Your task to perform on an android device: set an alarm Image 0: 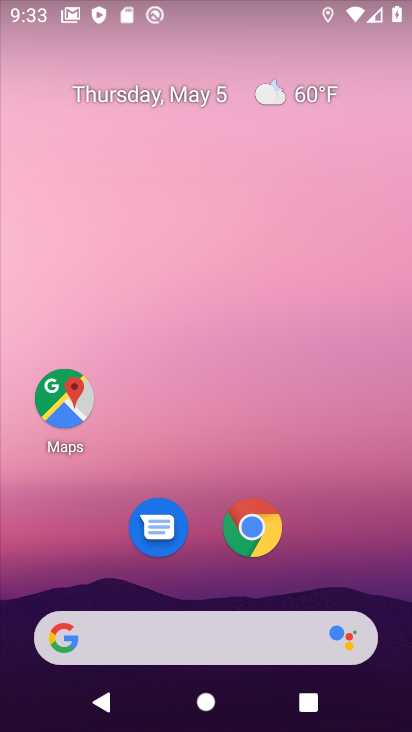
Step 0: press home button
Your task to perform on an android device: set an alarm Image 1: 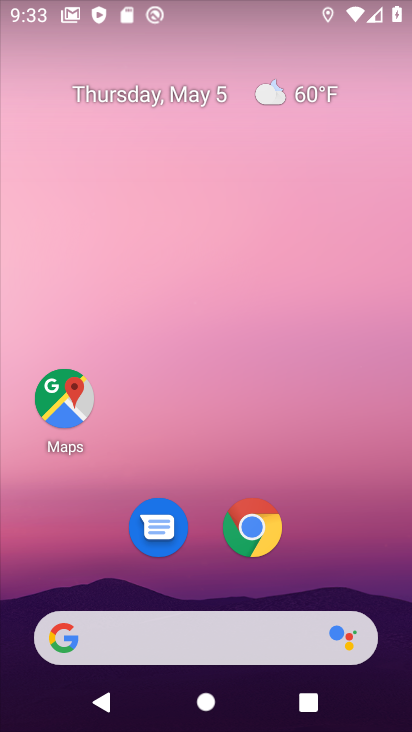
Step 1: drag from (210, 588) to (212, 0)
Your task to perform on an android device: set an alarm Image 2: 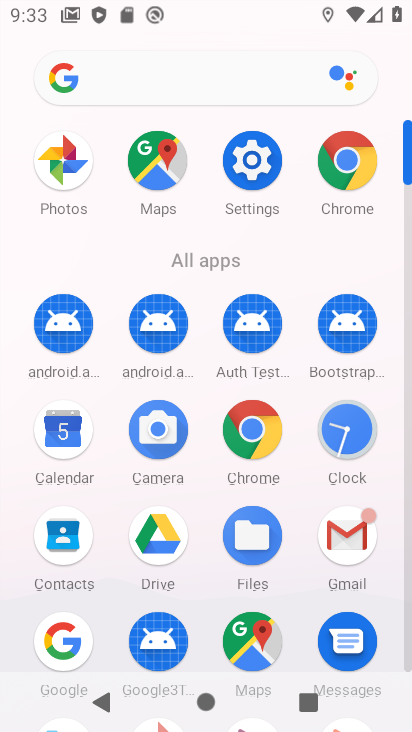
Step 2: click (344, 426)
Your task to perform on an android device: set an alarm Image 3: 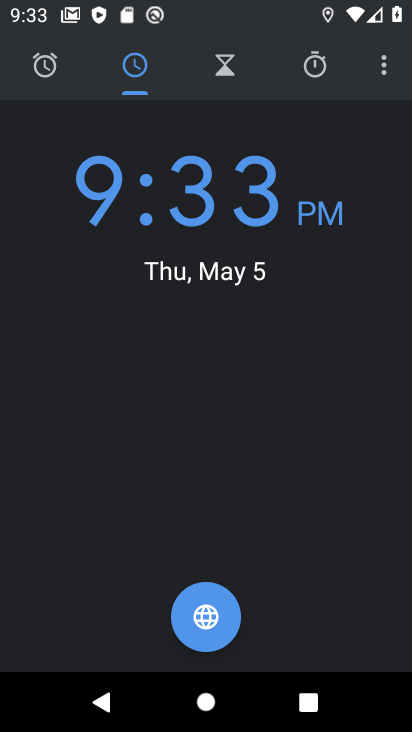
Step 3: click (49, 56)
Your task to perform on an android device: set an alarm Image 4: 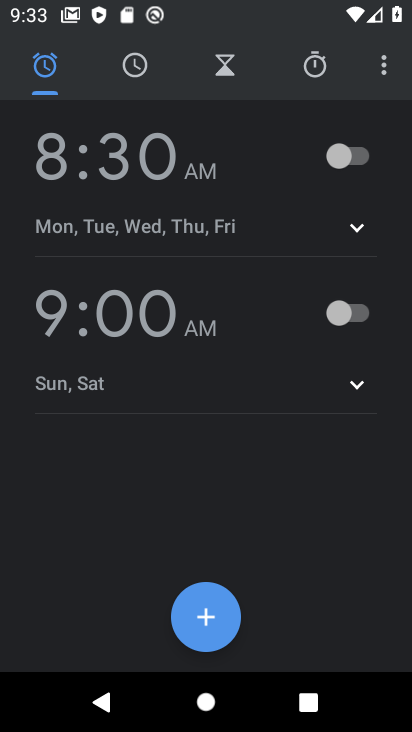
Step 4: click (137, 158)
Your task to perform on an android device: set an alarm Image 5: 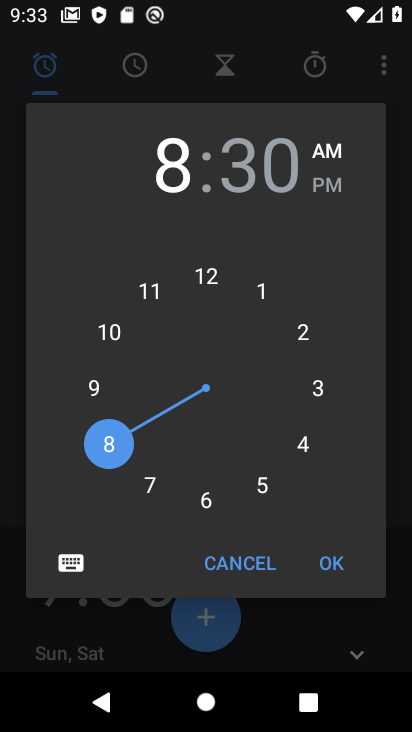
Step 5: click (324, 567)
Your task to perform on an android device: set an alarm Image 6: 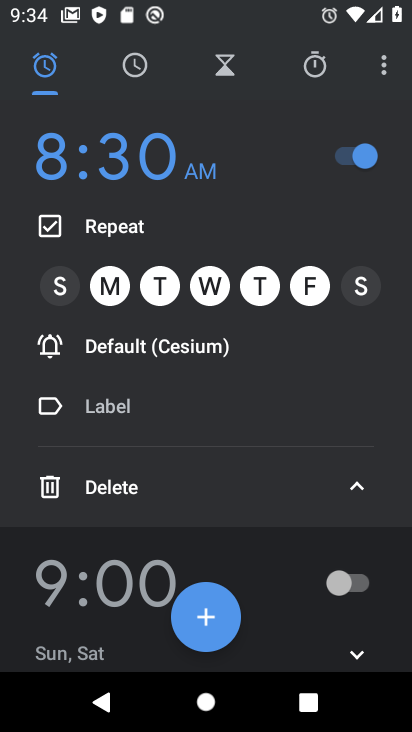
Step 6: task complete